Your task to perform on an android device: Open Google Maps Image 0: 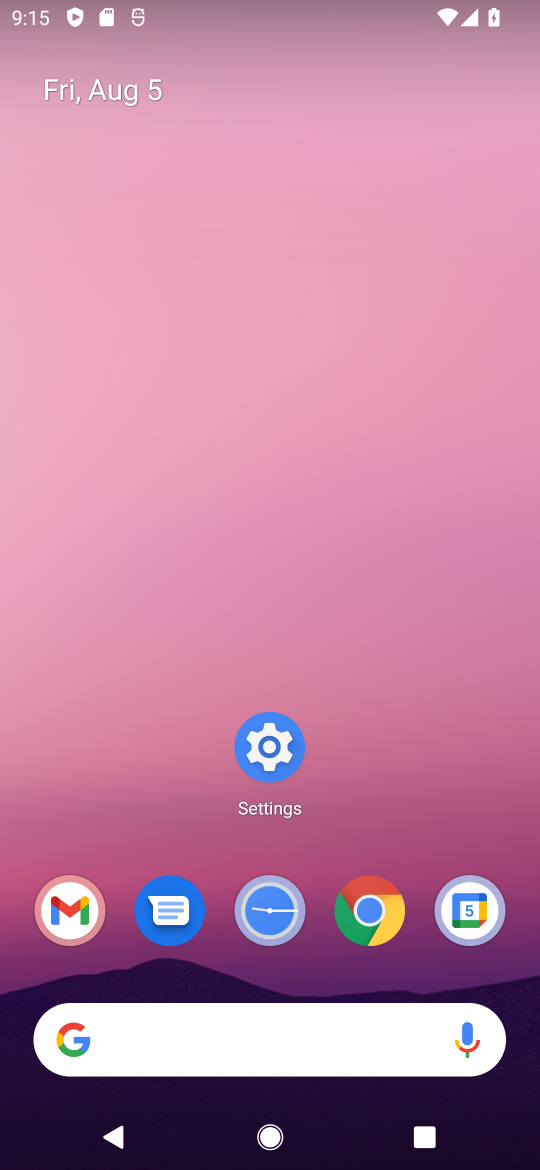
Step 0: drag from (217, 1038) to (390, 286)
Your task to perform on an android device: Open Google Maps Image 1: 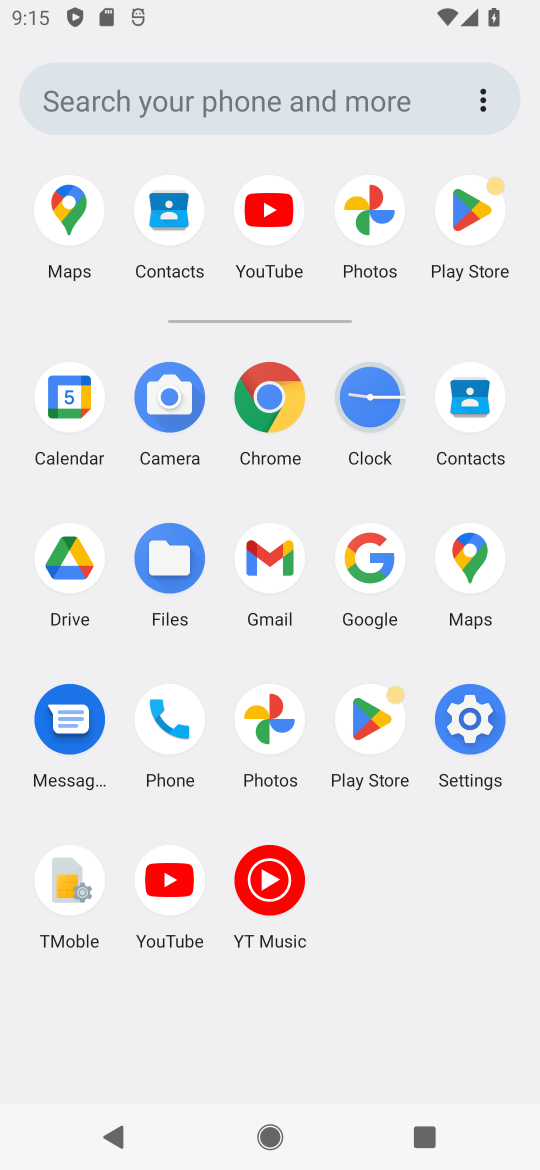
Step 1: click (468, 550)
Your task to perform on an android device: Open Google Maps Image 2: 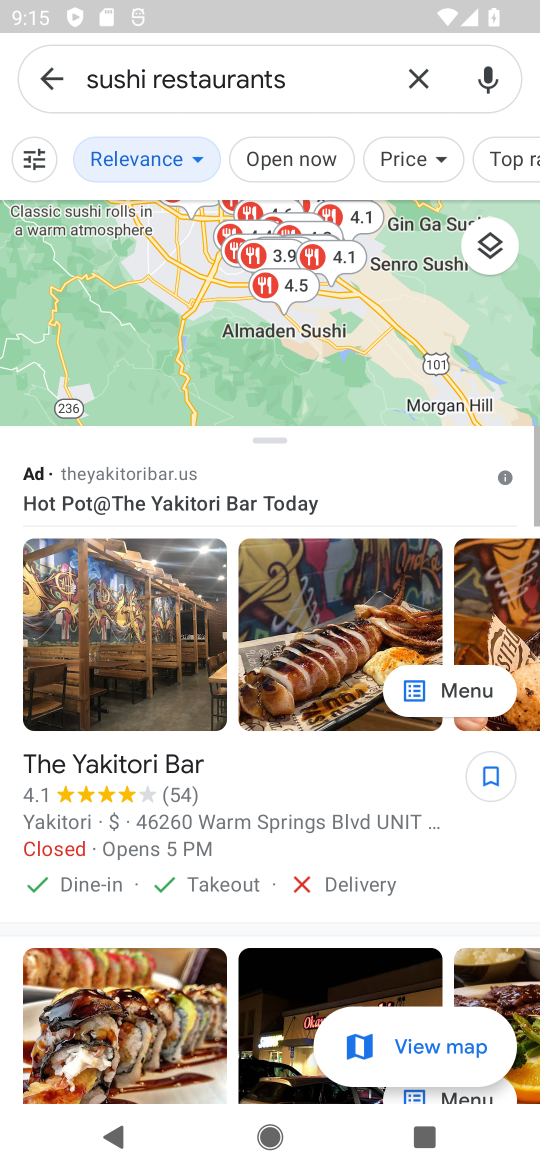
Step 2: click (416, 67)
Your task to perform on an android device: Open Google Maps Image 3: 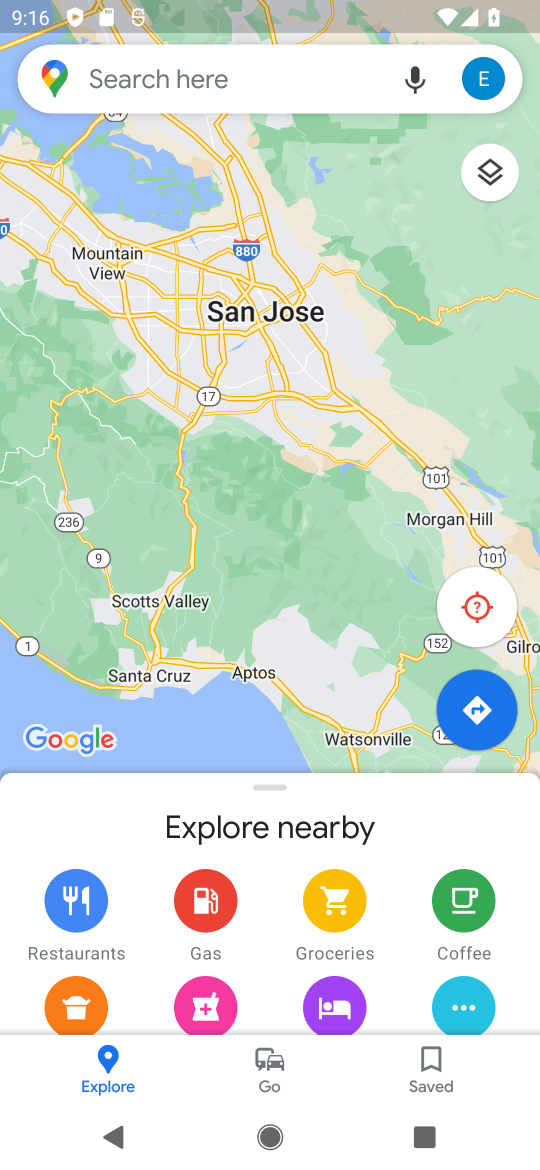
Step 3: task complete